Your task to perform on an android device: Go to Google Image 0: 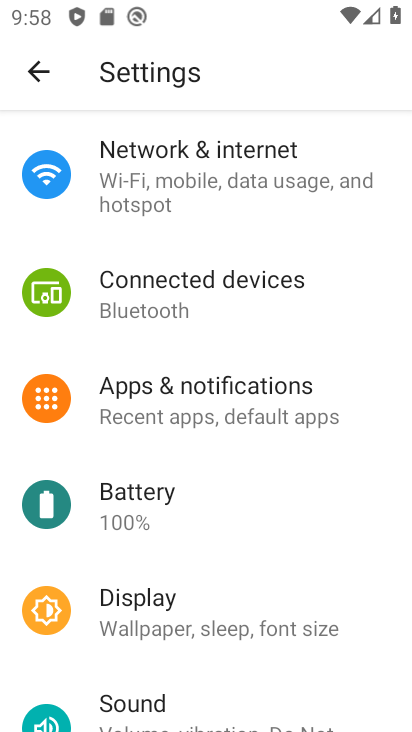
Step 0: press home button
Your task to perform on an android device: Go to Google Image 1: 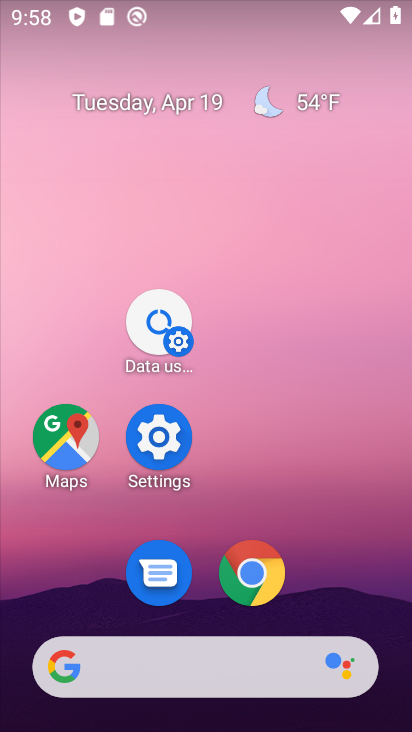
Step 1: drag from (371, 620) to (321, 48)
Your task to perform on an android device: Go to Google Image 2: 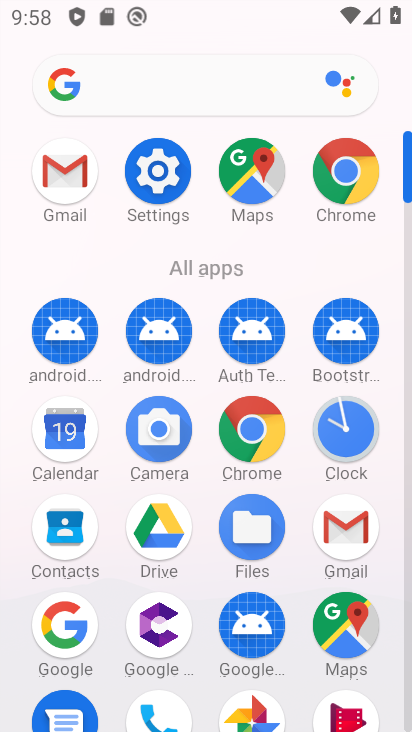
Step 2: click (62, 633)
Your task to perform on an android device: Go to Google Image 3: 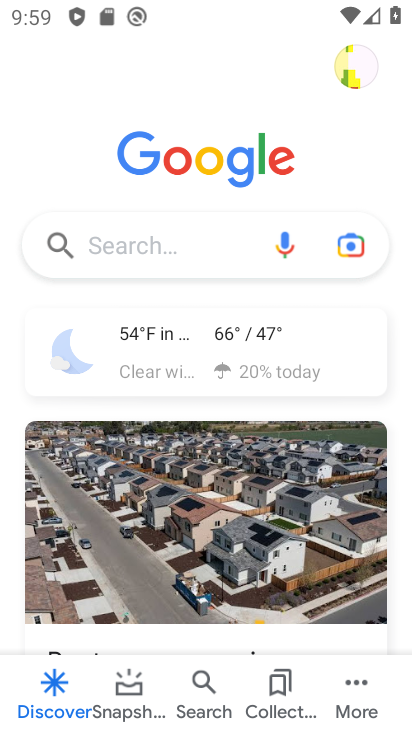
Step 3: task complete